Your task to perform on an android device: Clear the cart on target.com. Add logitech g pro to the cart on target.com Image 0: 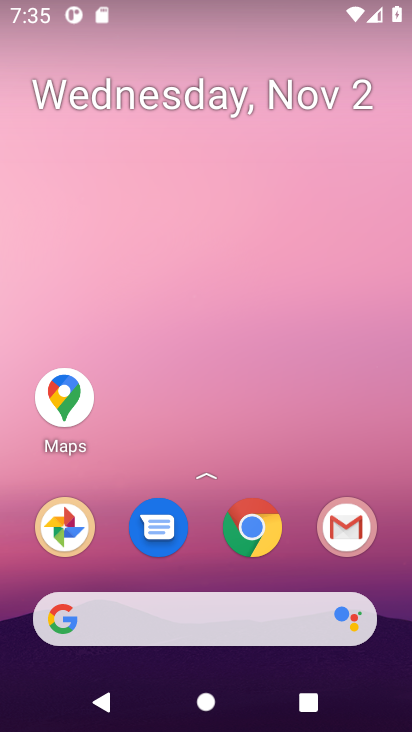
Step 0: click (245, 538)
Your task to perform on an android device: Clear the cart on target.com. Add logitech g pro to the cart on target.com Image 1: 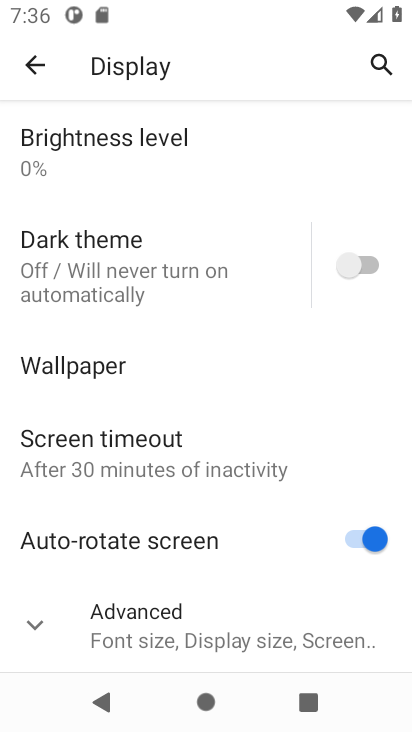
Step 1: press home button
Your task to perform on an android device: Clear the cart on target.com. Add logitech g pro to the cart on target.com Image 2: 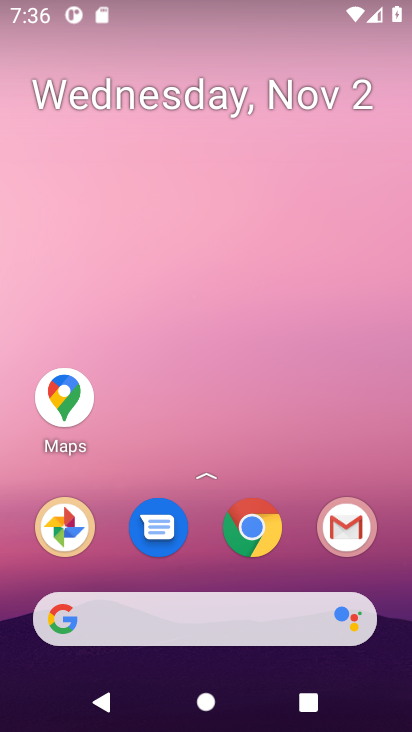
Step 2: click (257, 536)
Your task to perform on an android device: Clear the cart on target.com. Add logitech g pro to the cart on target.com Image 3: 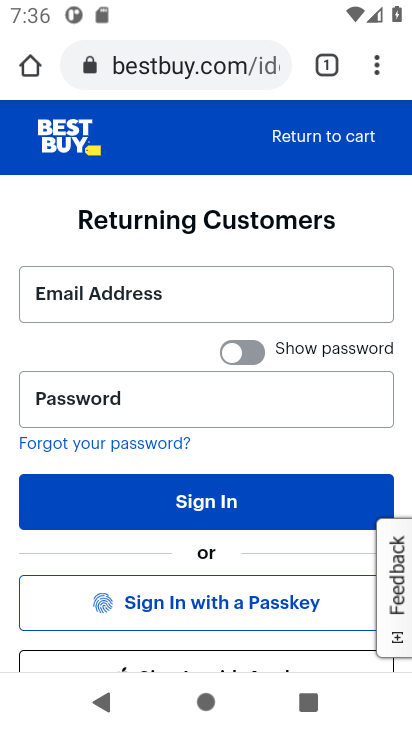
Step 3: click (232, 74)
Your task to perform on an android device: Clear the cart on target.com. Add logitech g pro to the cart on target.com Image 4: 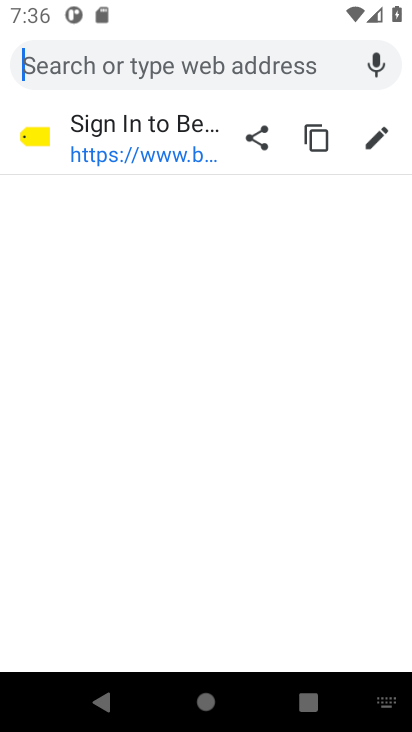
Step 4: type "target.com"
Your task to perform on an android device: Clear the cart on target.com. Add logitech g pro to the cart on target.com Image 5: 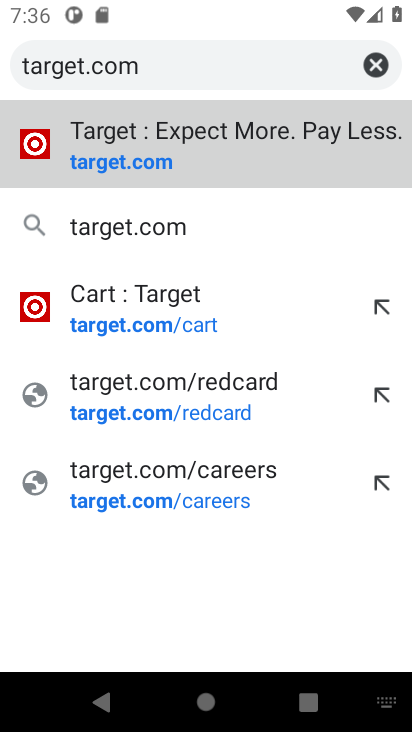
Step 5: click (278, 157)
Your task to perform on an android device: Clear the cart on target.com. Add logitech g pro to the cart on target.com Image 6: 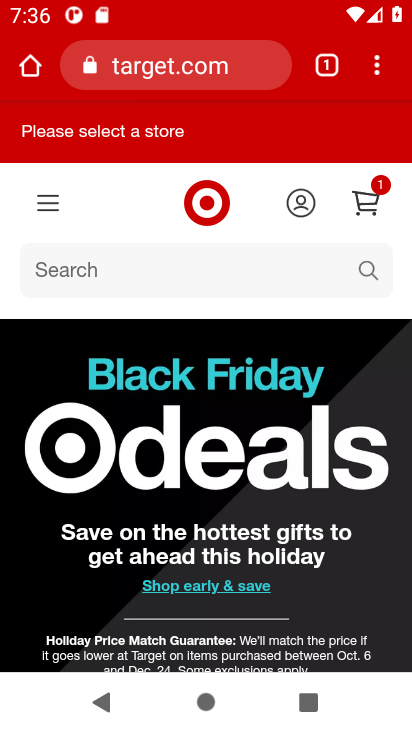
Step 6: click (368, 198)
Your task to perform on an android device: Clear the cart on target.com. Add logitech g pro to the cart on target.com Image 7: 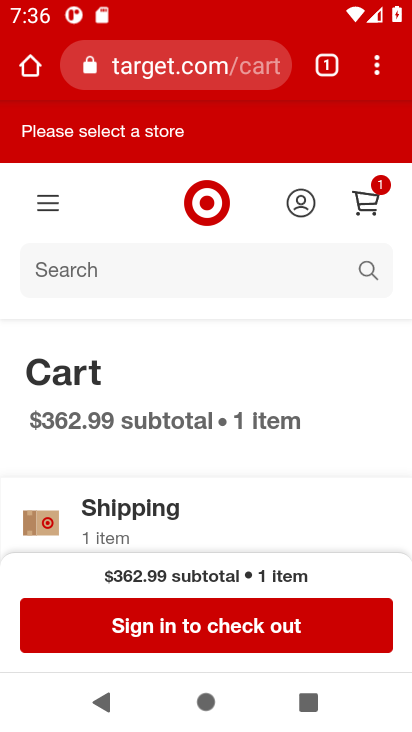
Step 7: drag from (241, 503) to (186, 320)
Your task to perform on an android device: Clear the cart on target.com. Add logitech g pro to the cart on target.com Image 8: 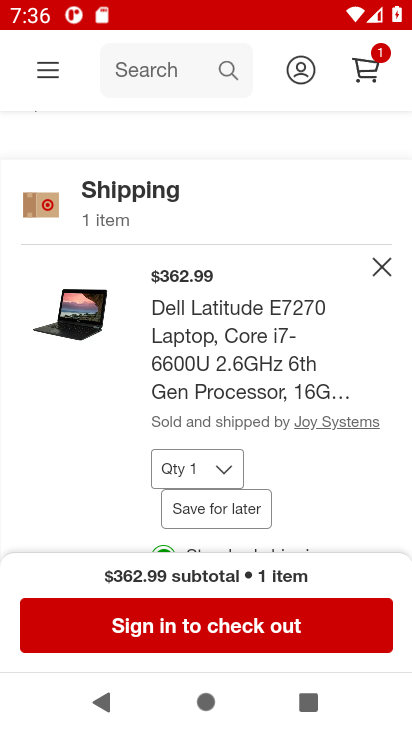
Step 8: click (380, 267)
Your task to perform on an android device: Clear the cart on target.com. Add logitech g pro to the cart on target.com Image 9: 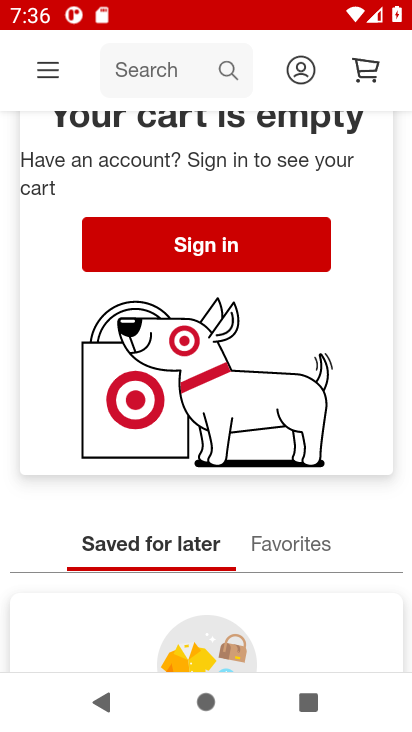
Step 9: click (227, 71)
Your task to perform on an android device: Clear the cart on target.com. Add logitech g pro to the cart on target.com Image 10: 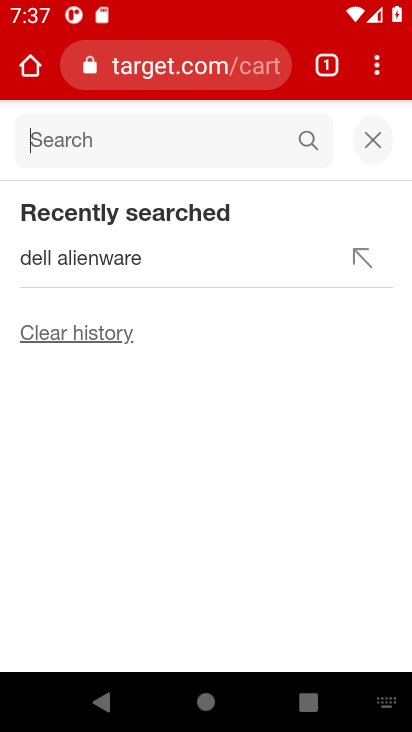
Step 10: type "logitech g pro"
Your task to perform on an android device: Clear the cart on target.com. Add logitech g pro to the cart on target.com Image 11: 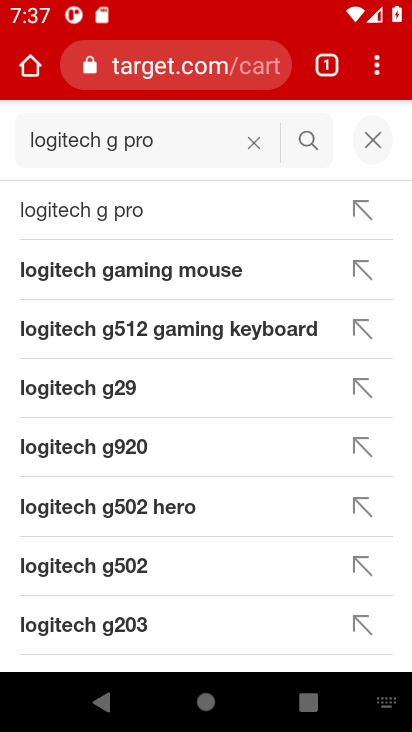
Step 11: click (58, 210)
Your task to perform on an android device: Clear the cart on target.com. Add logitech g pro to the cart on target.com Image 12: 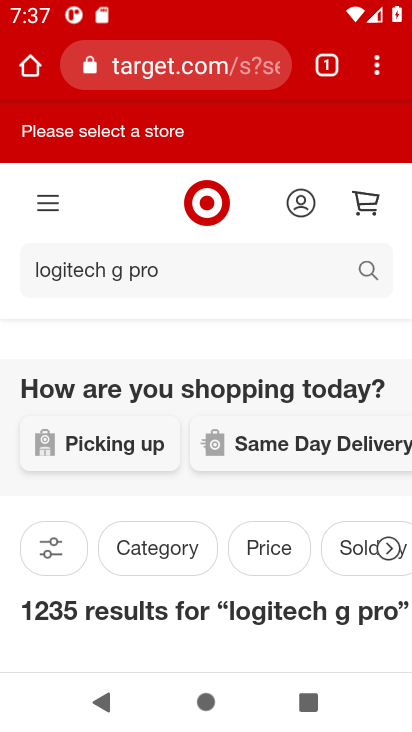
Step 12: drag from (232, 496) to (143, 242)
Your task to perform on an android device: Clear the cart on target.com. Add logitech g pro to the cart on target.com Image 13: 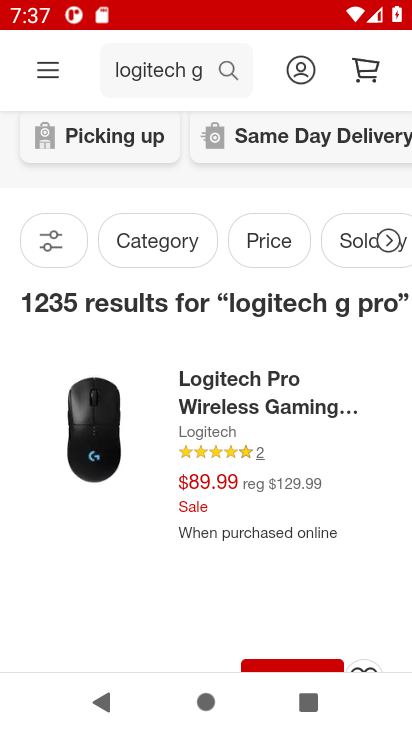
Step 13: click (78, 436)
Your task to perform on an android device: Clear the cart on target.com. Add logitech g pro to the cart on target.com Image 14: 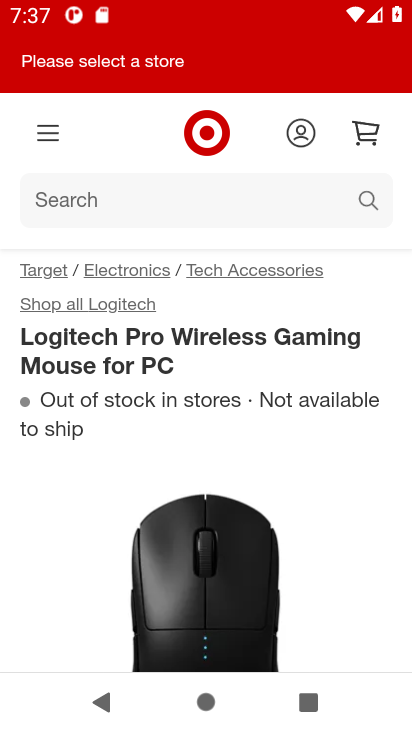
Step 14: press back button
Your task to perform on an android device: Clear the cart on target.com. Add logitech g pro to the cart on target.com Image 15: 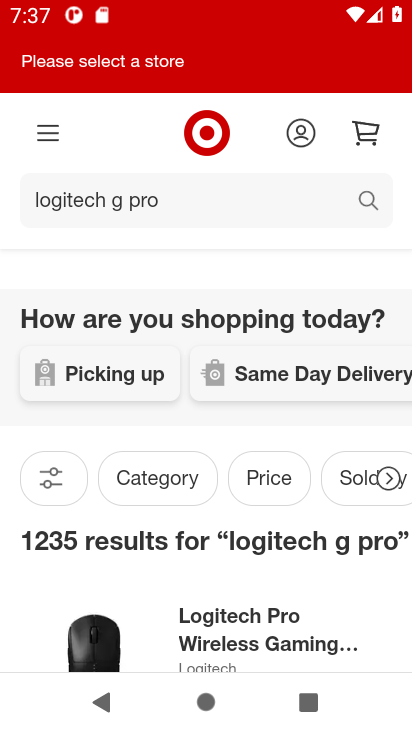
Step 15: drag from (319, 572) to (155, 46)
Your task to perform on an android device: Clear the cart on target.com. Add logitech g pro to the cart on target.com Image 16: 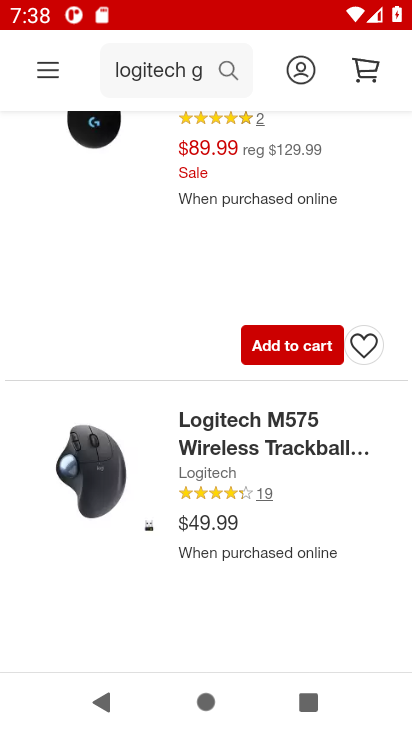
Step 16: drag from (254, 607) to (327, 723)
Your task to perform on an android device: Clear the cart on target.com. Add logitech g pro to the cart on target.com Image 17: 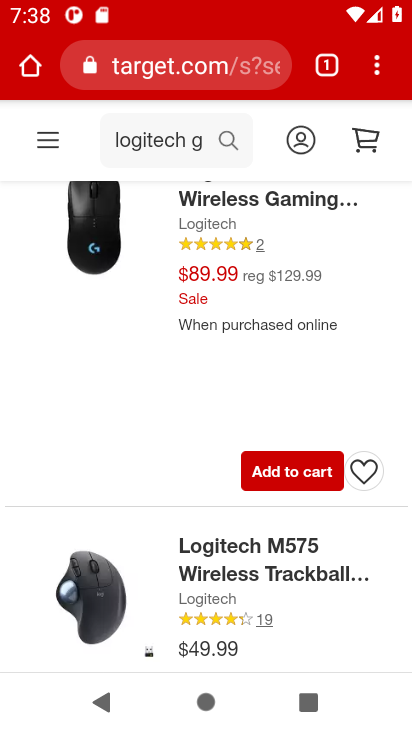
Step 17: click (293, 470)
Your task to perform on an android device: Clear the cart on target.com. Add logitech g pro to the cart on target.com Image 18: 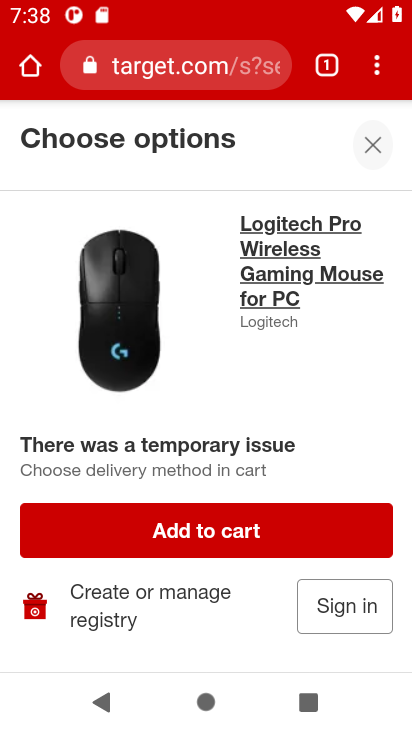
Step 18: click (206, 527)
Your task to perform on an android device: Clear the cart on target.com. Add logitech g pro to the cart on target.com Image 19: 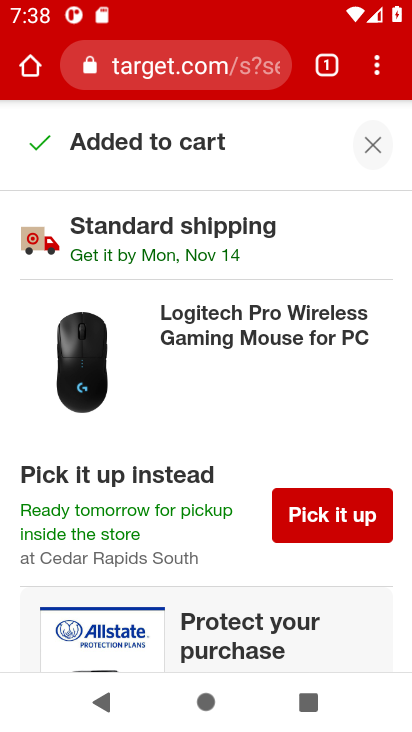
Step 19: task complete